Your task to perform on an android device: check data usage Image 0: 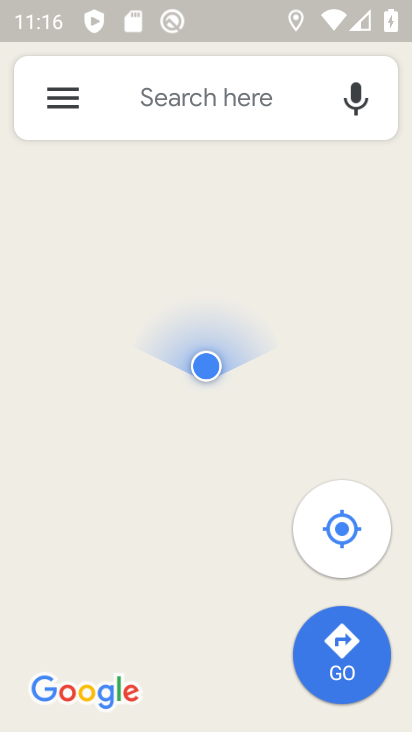
Step 0: press home button
Your task to perform on an android device: check data usage Image 1: 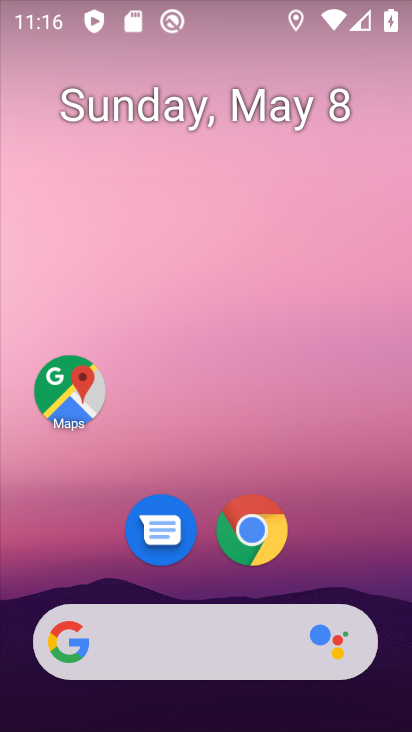
Step 1: drag from (313, 615) to (345, 0)
Your task to perform on an android device: check data usage Image 2: 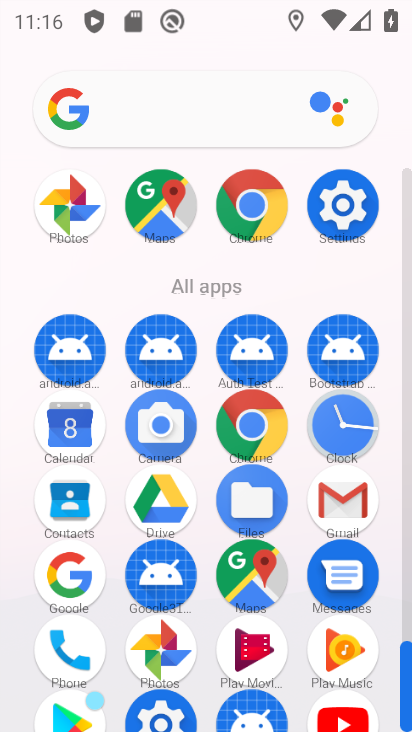
Step 2: drag from (294, 666) to (305, 330)
Your task to perform on an android device: check data usage Image 3: 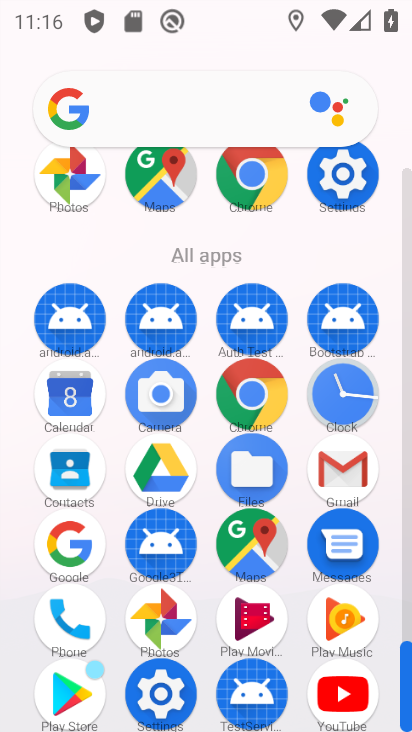
Step 3: click (167, 685)
Your task to perform on an android device: check data usage Image 4: 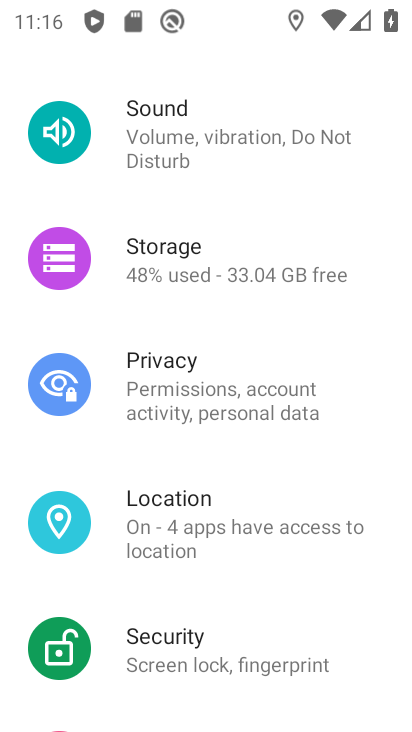
Step 4: drag from (306, 201) to (263, 726)
Your task to perform on an android device: check data usage Image 5: 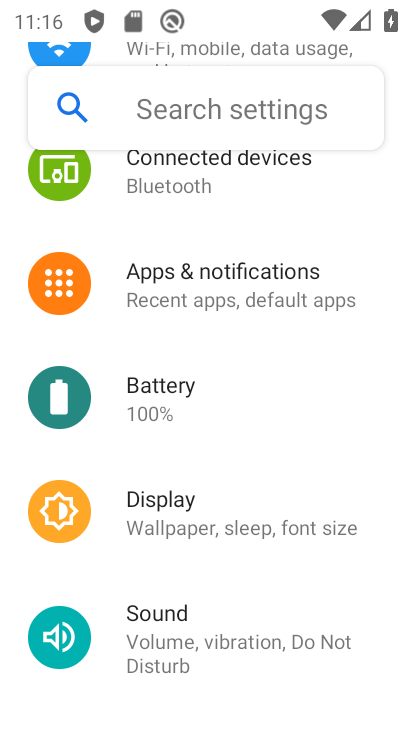
Step 5: drag from (206, 257) to (260, 687)
Your task to perform on an android device: check data usage Image 6: 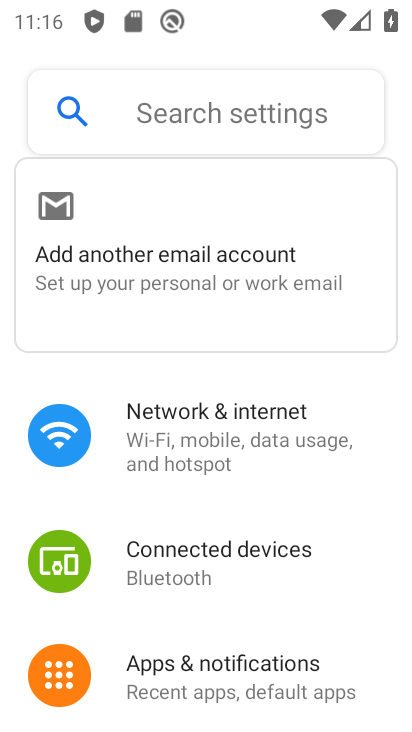
Step 6: click (215, 440)
Your task to perform on an android device: check data usage Image 7: 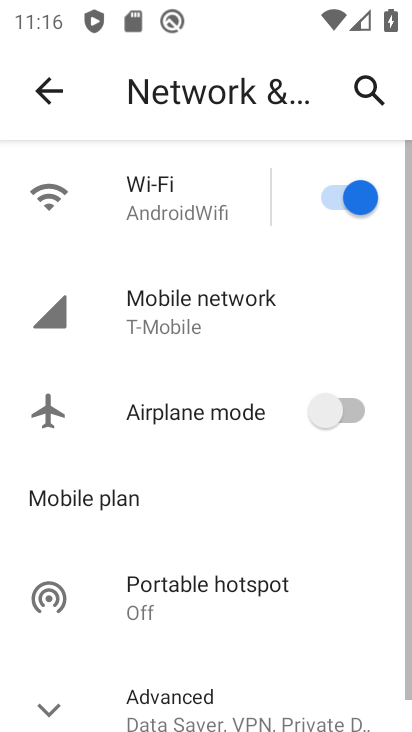
Step 7: drag from (235, 584) to (234, 383)
Your task to perform on an android device: check data usage Image 8: 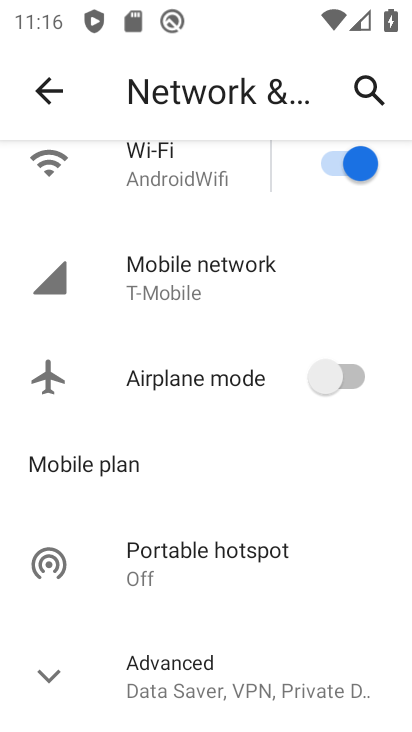
Step 8: click (198, 281)
Your task to perform on an android device: check data usage Image 9: 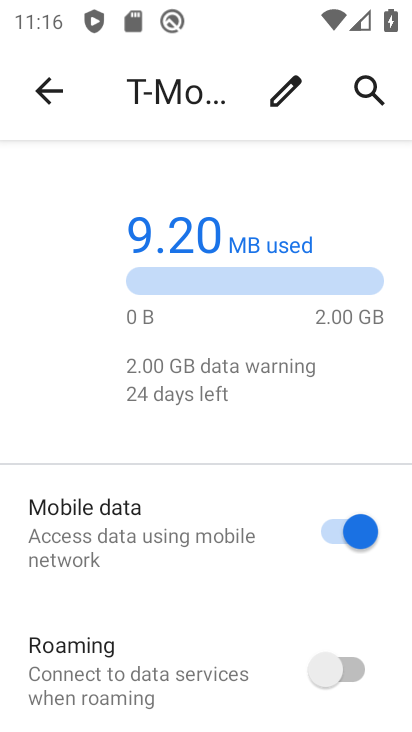
Step 9: task complete